Your task to perform on an android device: turn off priority inbox in the gmail app Image 0: 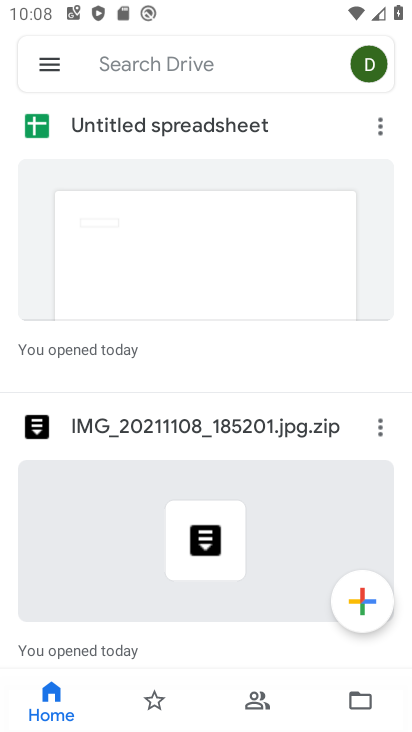
Step 0: press back button
Your task to perform on an android device: turn off priority inbox in the gmail app Image 1: 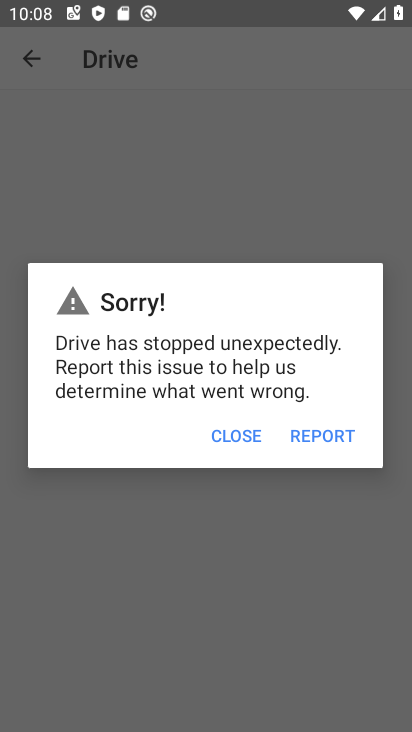
Step 1: press home button
Your task to perform on an android device: turn off priority inbox in the gmail app Image 2: 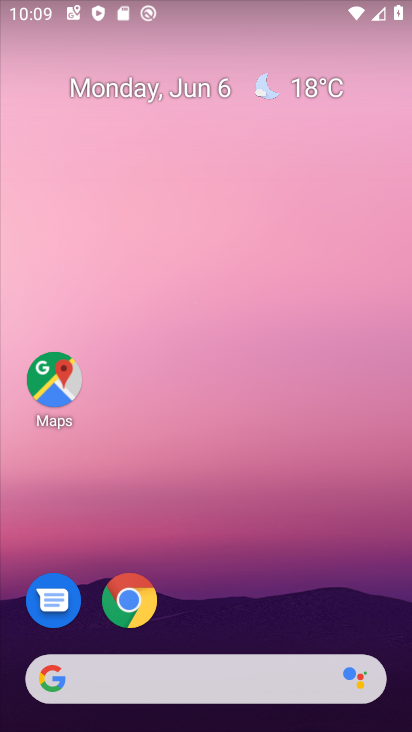
Step 2: drag from (272, 535) to (214, 3)
Your task to perform on an android device: turn off priority inbox in the gmail app Image 3: 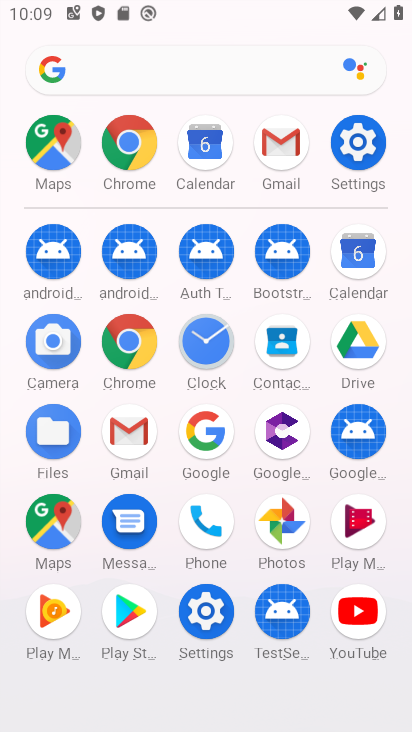
Step 3: click (281, 138)
Your task to perform on an android device: turn off priority inbox in the gmail app Image 4: 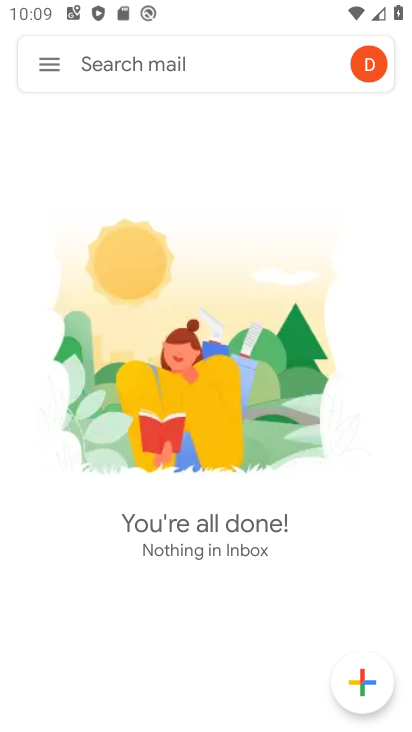
Step 4: click (23, 66)
Your task to perform on an android device: turn off priority inbox in the gmail app Image 5: 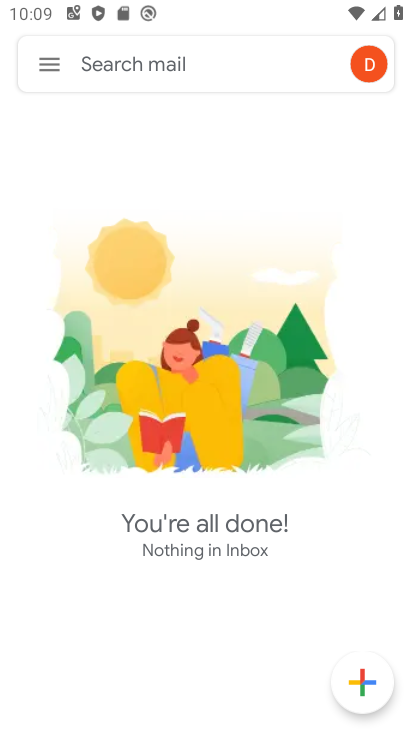
Step 5: click (46, 62)
Your task to perform on an android device: turn off priority inbox in the gmail app Image 6: 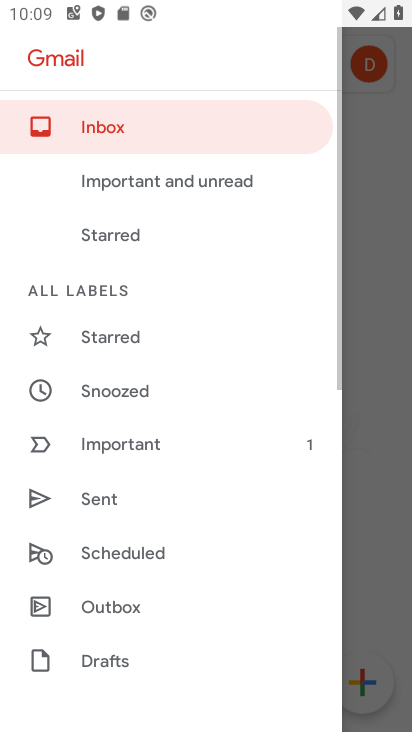
Step 6: drag from (206, 554) to (237, 168)
Your task to perform on an android device: turn off priority inbox in the gmail app Image 7: 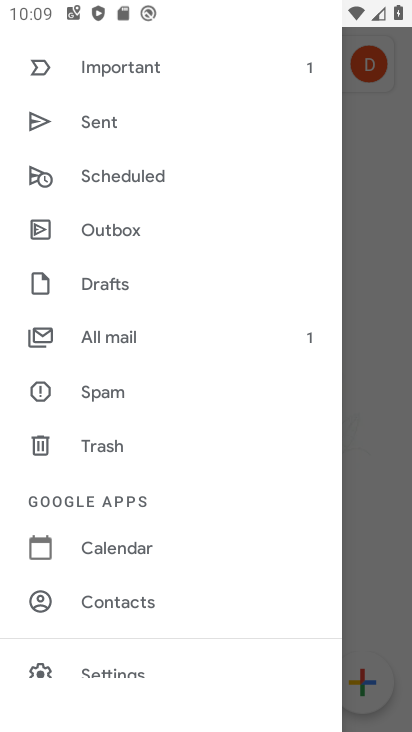
Step 7: drag from (189, 635) to (195, 183)
Your task to perform on an android device: turn off priority inbox in the gmail app Image 8: 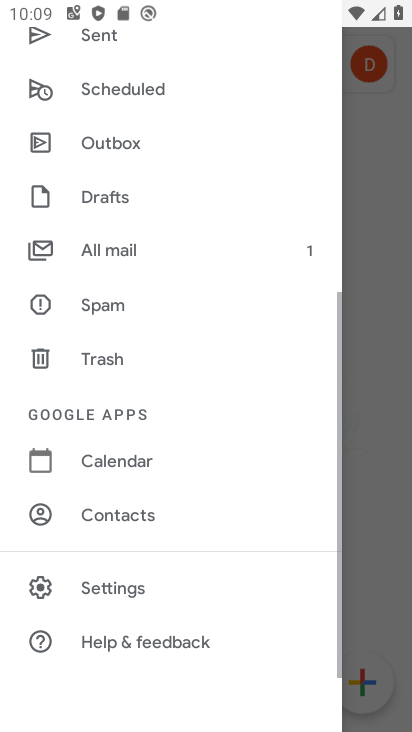
Step 8: click (124, 592)
Your task to perform on an android device: turn off priority inbox in the gmail app Image 9: 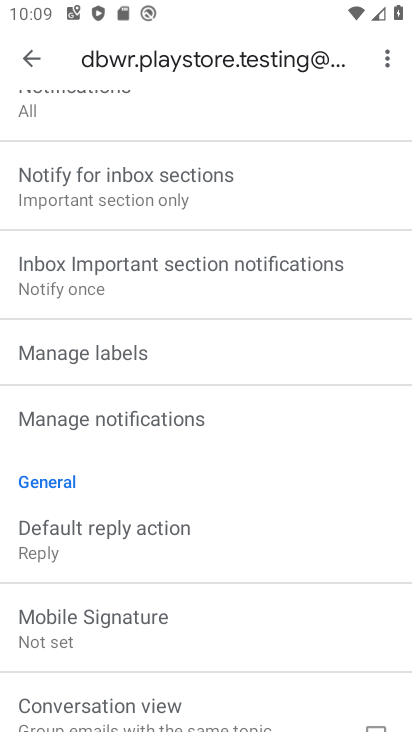
Step 9: click (268, 647)
Your task to perform on an android device: turn off priority inbox in the gmail app Image 10: 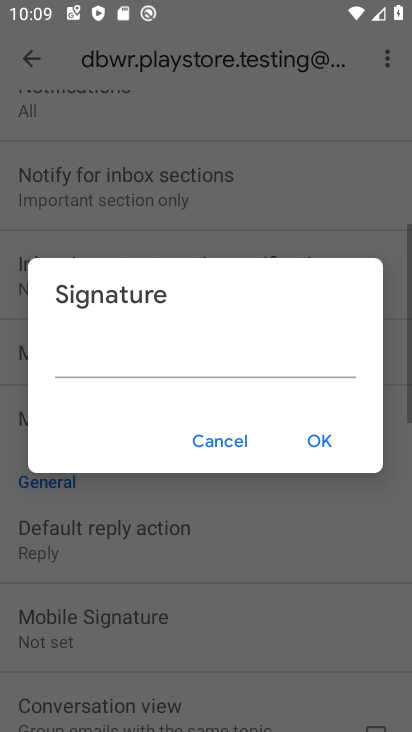
Step 10: drag from (252, 208) to (277, 544)
Your task to perform on an android device: turn off priority inbox in the gmail app Image 11: 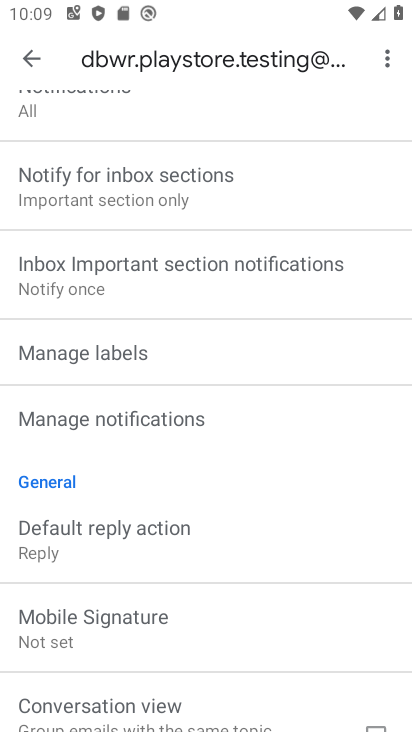
Step 11: click (219, 432)
Your task to perform on an android device: turn off priority inbox in the gmail app Image 12: 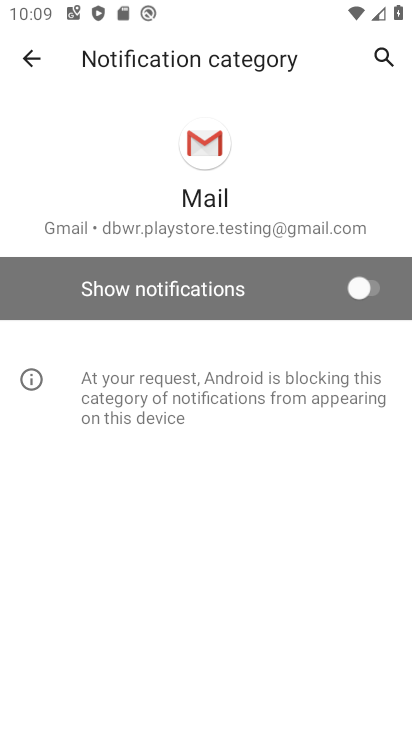
Step 12: click (35, 61)
Your task to perform on an android device: turn off priority inbox in the gmail app Image 13: 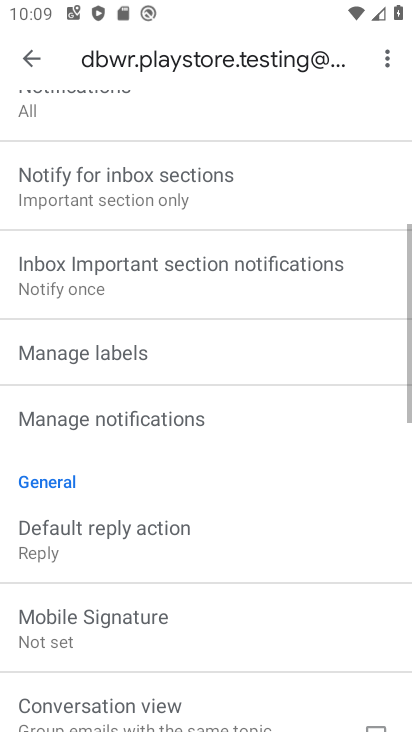
Step 13: drag from (270, 196) to (287, 635)
Your task to perform on an android device: turn off priority inbox in the gmail app Image 14: 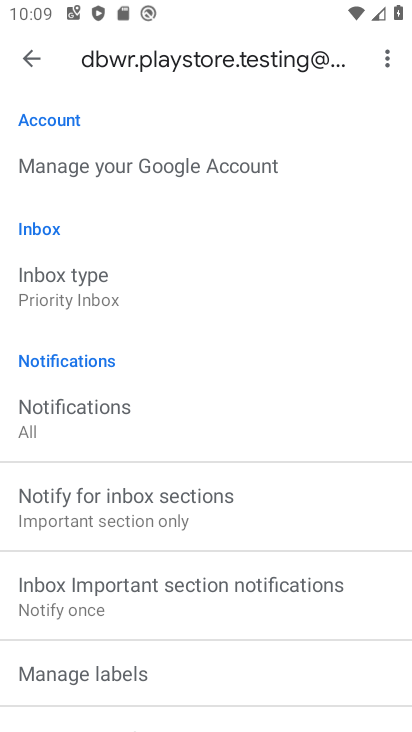
Step 14: click (104, 285)
Your task to perform on an android device: turn off priority inbox in the gmail app Image 15: 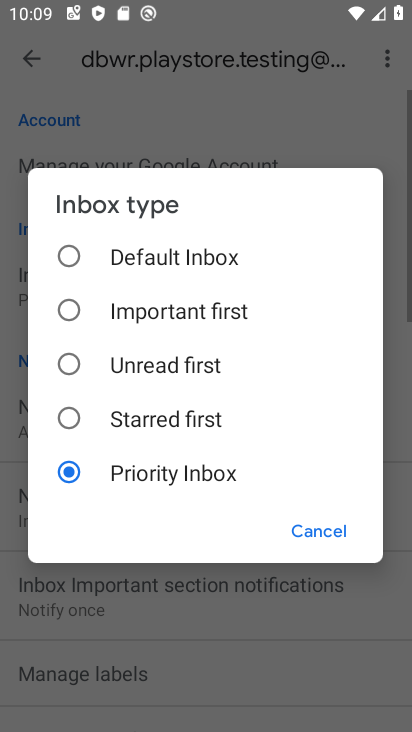
Step 15: click (126, 258)
Your task to perform on an android device: turn off priority inbox in the gmail app Image 16: 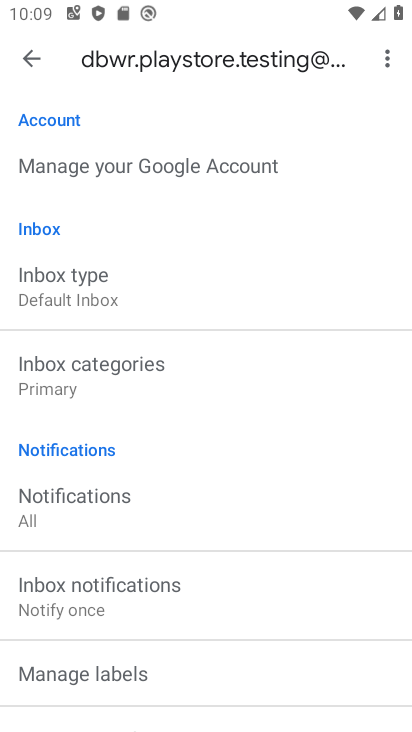
Step 16: task complete